Your task to perform on an android device: What's on my calendar today? Image 0: 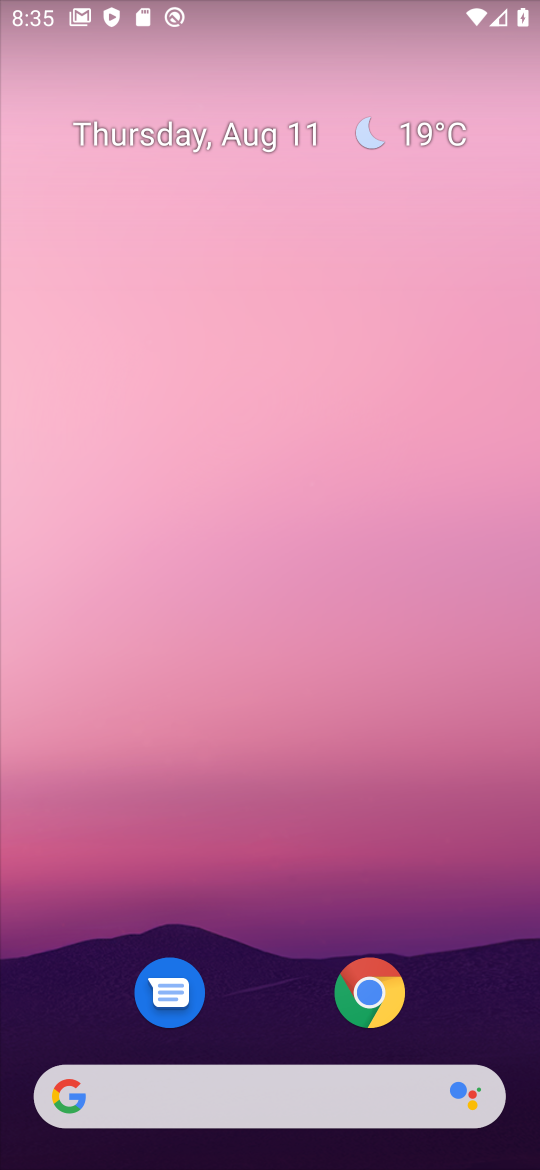
Step 0: click (210, 141)
Your task to perform on an android device: What's on my calendar today? Image 1: 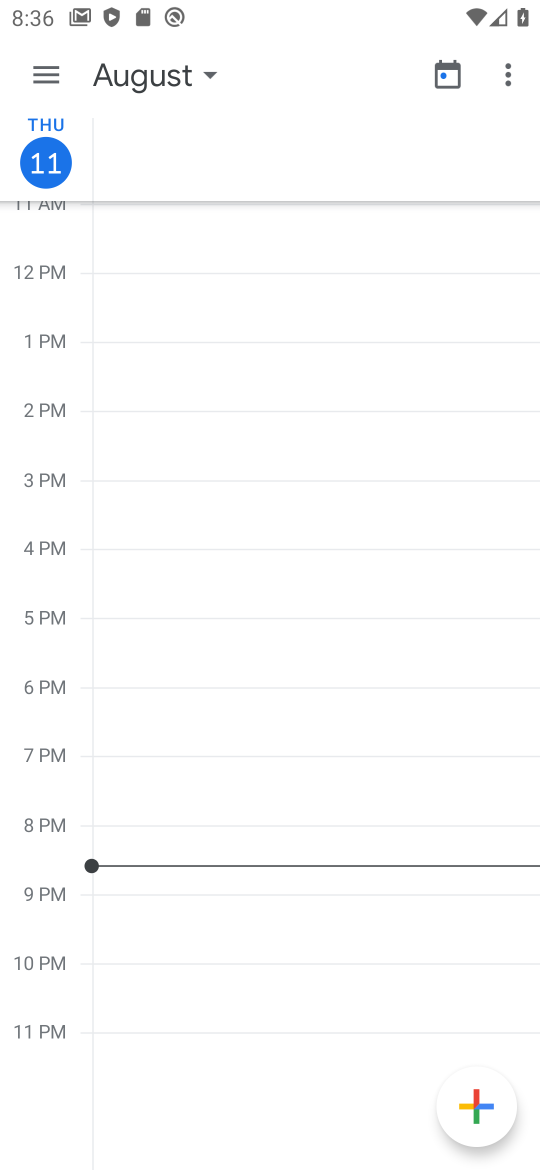
Step 1: task complete